Your task to perform on an android device: turn on location history Image 0: 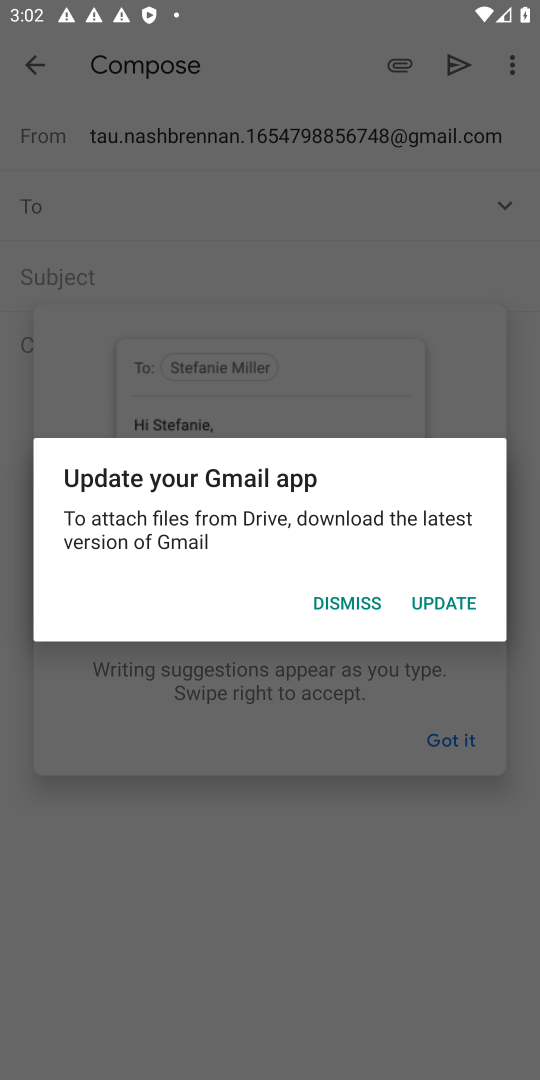
Step 0: press home button
Your task to perform on an android device: turn on location history Image 1: 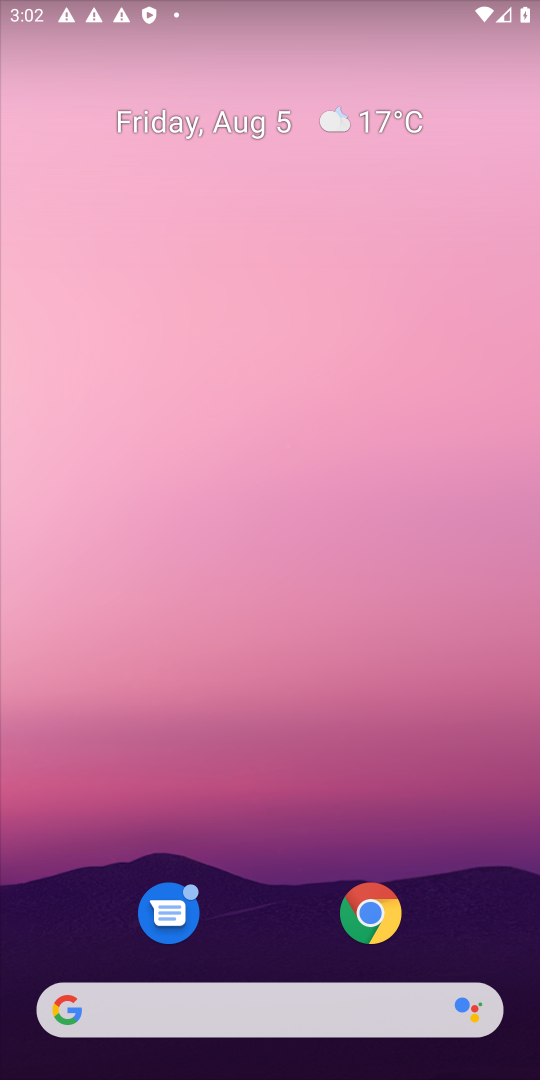
Step 1: drag from (350, 419) to (399, 227)
Your task to perform on an android device: turn on location history Image 2: 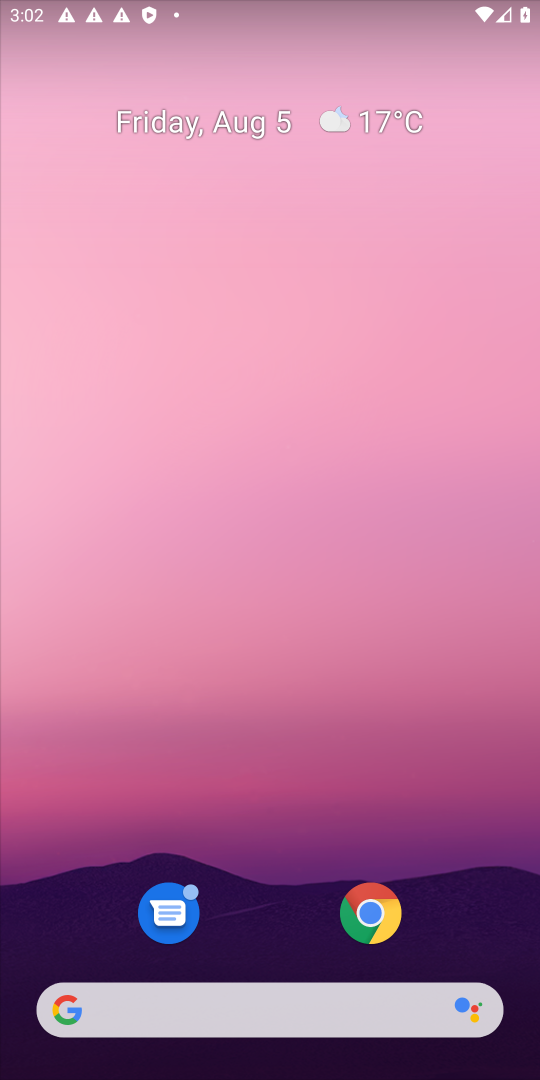
Step 2: drag from (270, 994) to (456, 27)
Your task to perform on an android device: turn on location history Image 3: 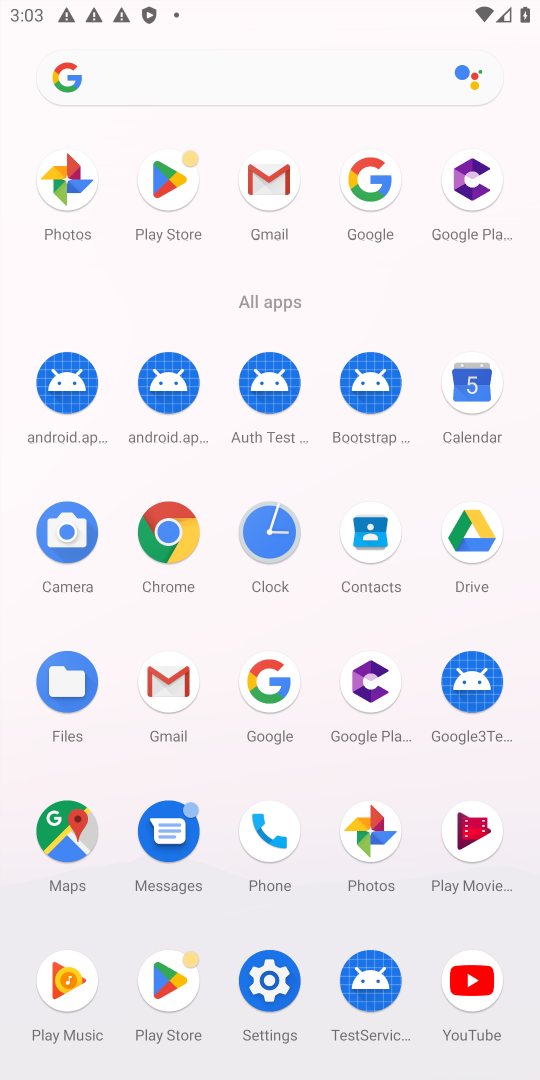
Step 3: click (274, 987)
Your task to perform on an android device: turn on location history Image 4: 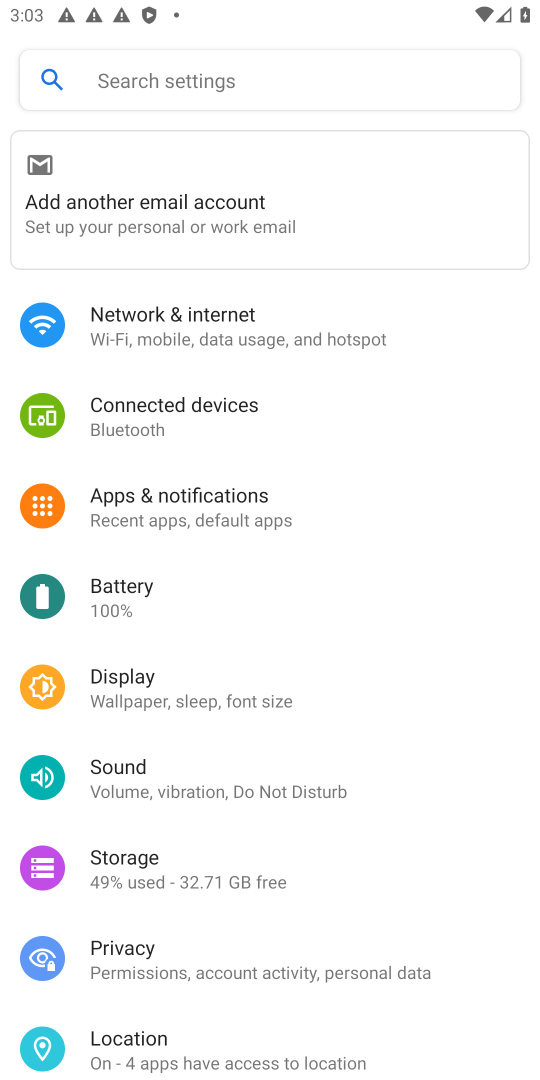
Step 4: drag from (183, 1014) to (382, 294)
Your task to perform on an android device: turn on location history Image 5: 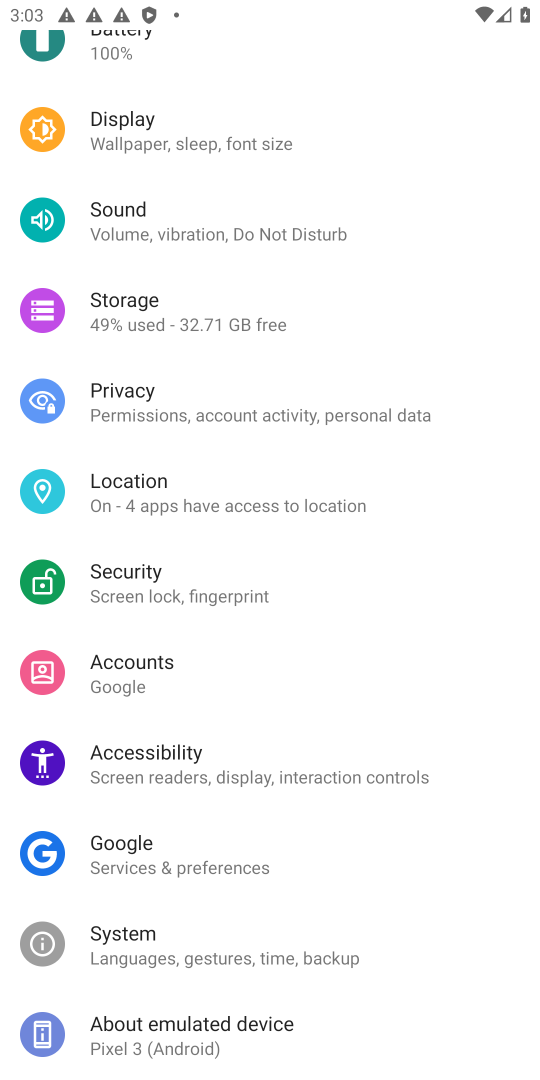
Step 5: click (157, 496)
Your task to perform on an android device: turn on location history Image 6: 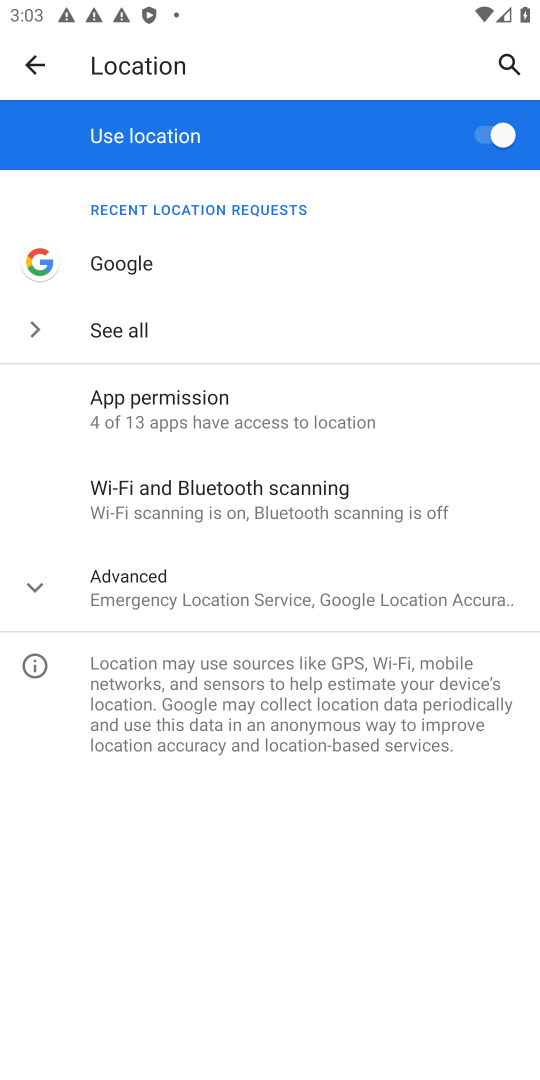
Step 6: click (151, 573)
Your task to perform on an android device: turn on location history Image 7: 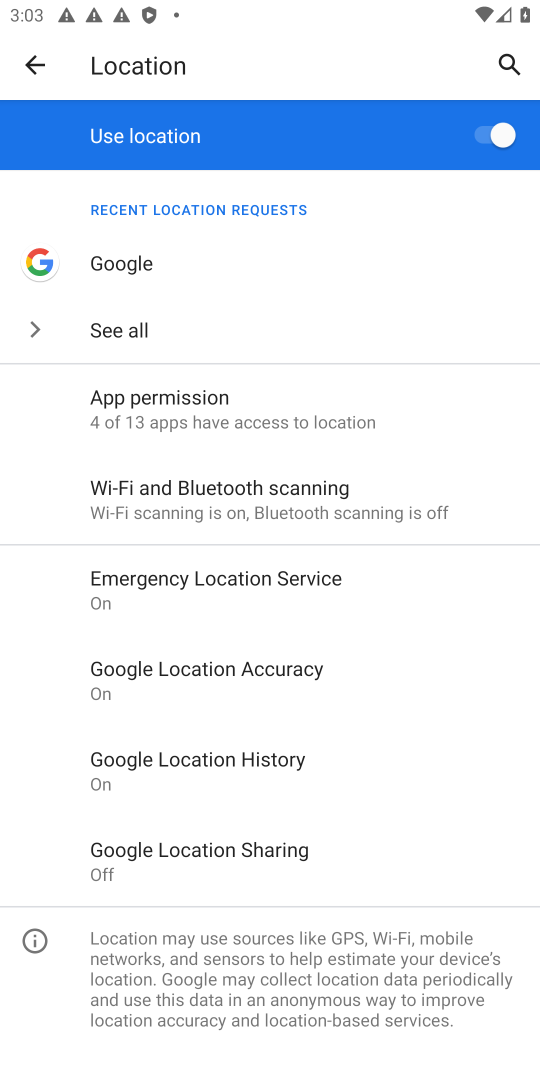
Step 7: click (232, 762)
Your task to perform on an android device: turn on location history Image 8: 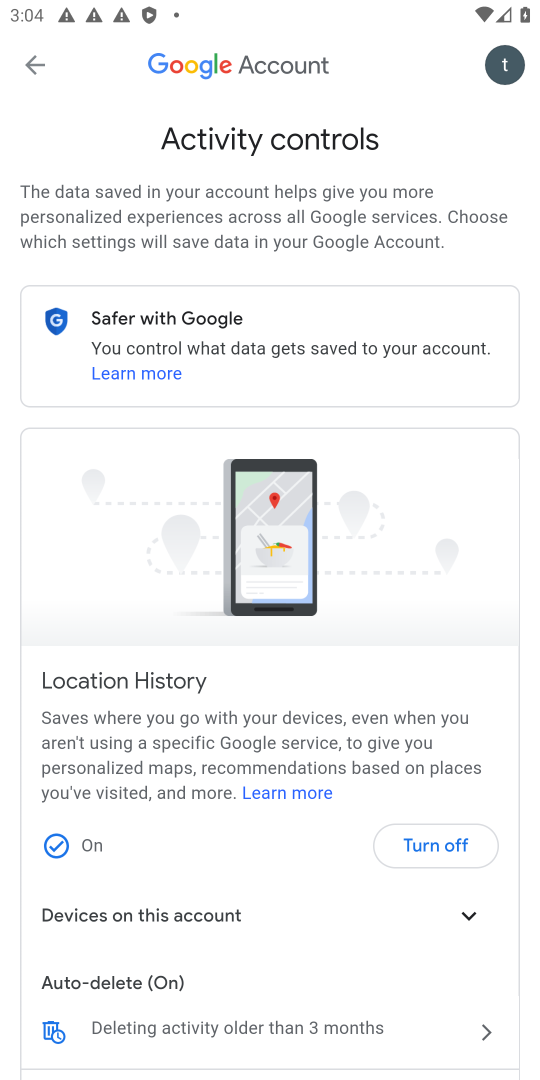
Step 8: task complete